Your task to perform on an android device: turn on notifications settings in the gmail app Image 0: 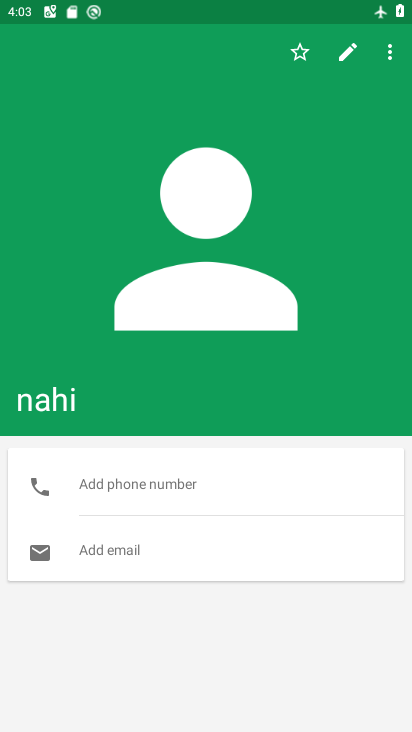
Step 0: press home button
Your task to perform on an android device: turn on notifications settings in the gmail app Image 1: 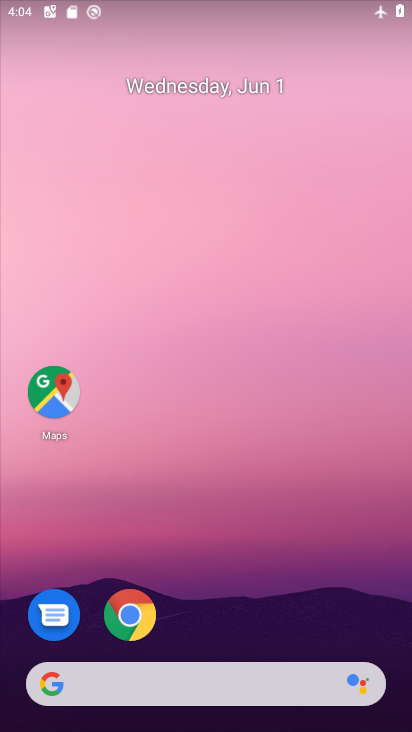
Step 1: drag from (303, 595) to (279, 180)
Your task to perform on an android device: turn on notifications settings in the gmail app Image 2: 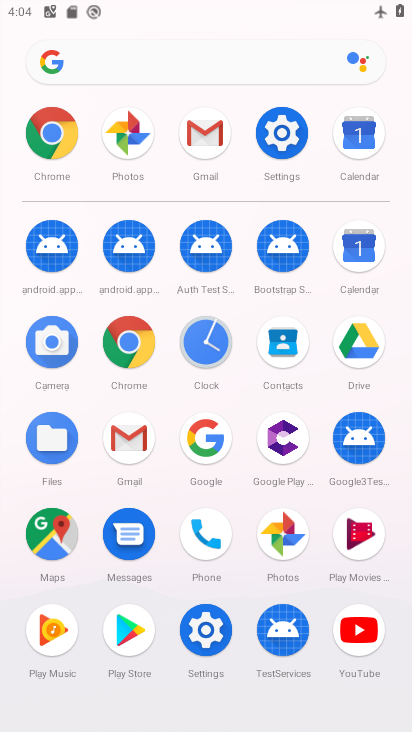
Step 2: click (216, 141)
Your task to perform on an android device: turn on notifications settings in the gmail app Image 3: 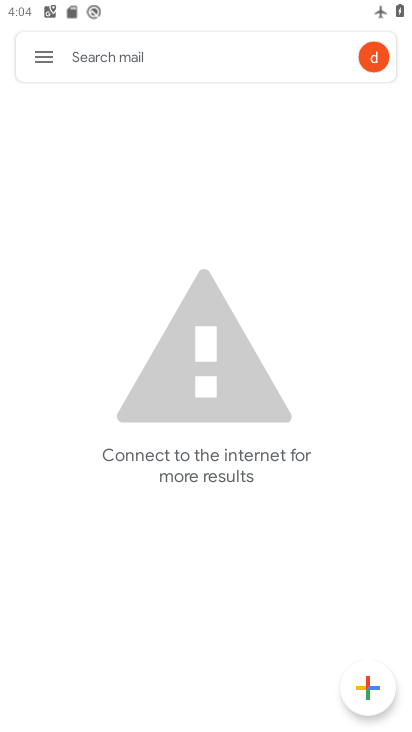
Step 3: click (44, 64)
Your task to perform on an android device: turn on notifications settings in the gmail app Image 4: 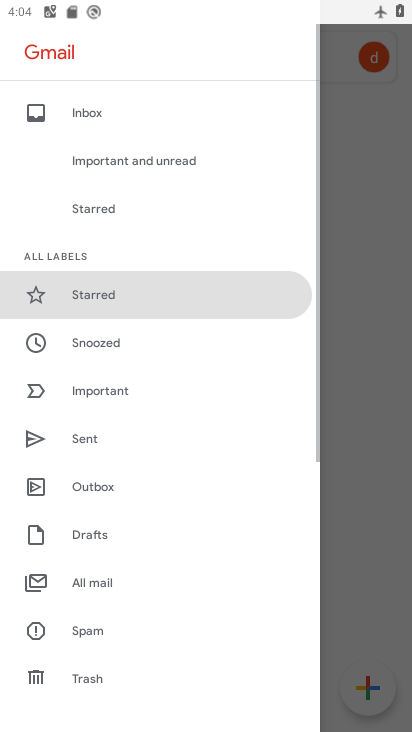
Step 4: drag from (113, 565) to (185, 107)
Your task to perform on an android device: turn on notifications settings in the gmail app Image 5: 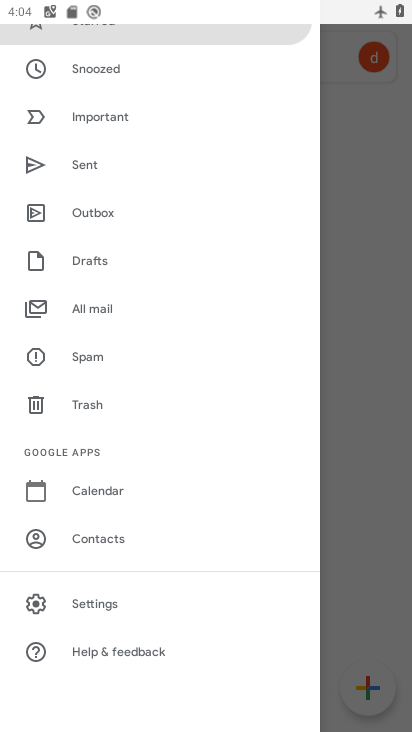
Step 5: click (104, 604)
Your task to perform on an android device: turn on notifications settings in the gmail app Image 6: 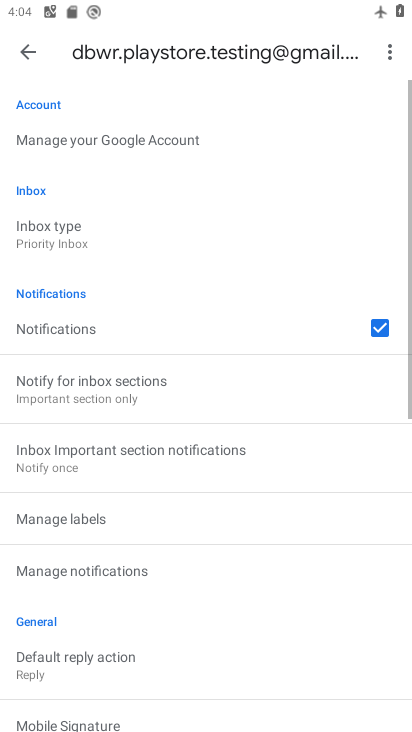
Step 6: click (184, 641)
Your task to perform on an android device: turn on notifications settings in the gmail app Image 7: 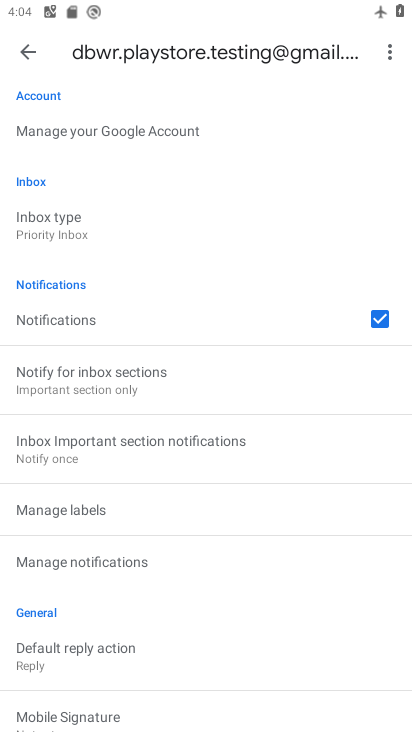
Step 7: click (124, 565)
Your task to perform on an android device: turn on notifications settings in the gmail app Image 8: 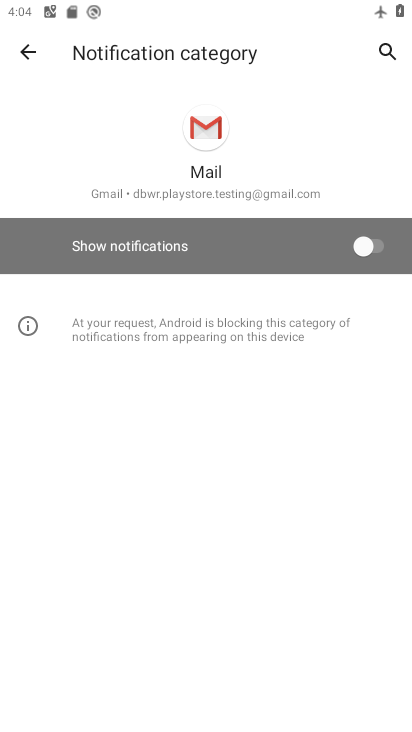
Step 8: click (367, 261)
Your task to perform on an android device: turn on notifications settings in the gmail app Image 9: 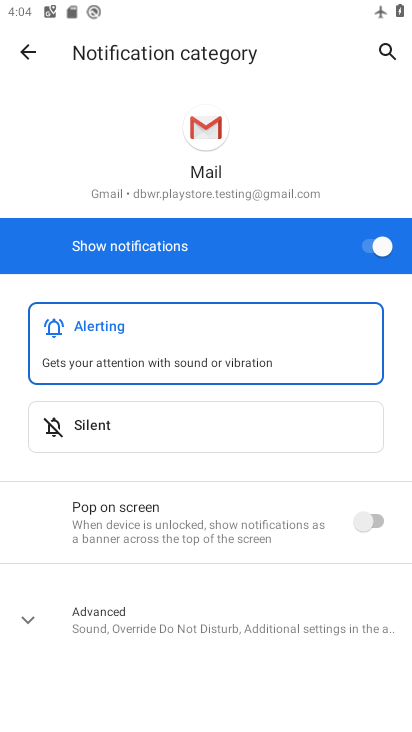
Step 9: task complete